Your task to perform on an android device: turn on priority inbox in the gmail app Image 0: 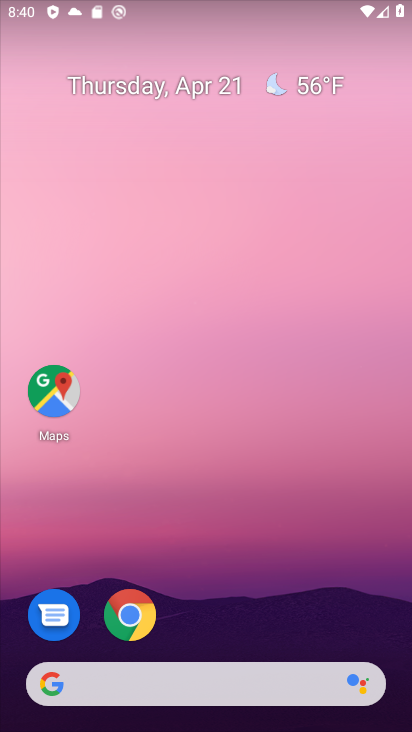
Step 0: drag from (268, 616) to (219, 138)
Your task to perform on an android device: turn on priority inbox in the gmail app Image 1: 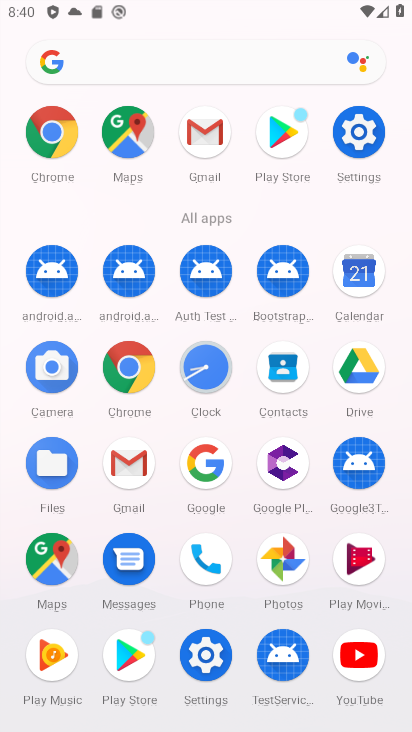
Step 1: click (213, 136)
Your task to perform on an android device: turn on priority inbox in the gmail app Image 2: 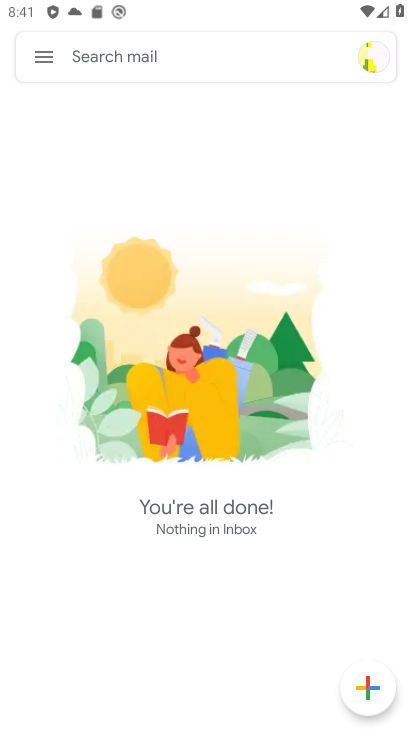
Step 2: click (39, 60)
Your task to perform on an android device: turn on priority inbox in the gmail app Image 3: 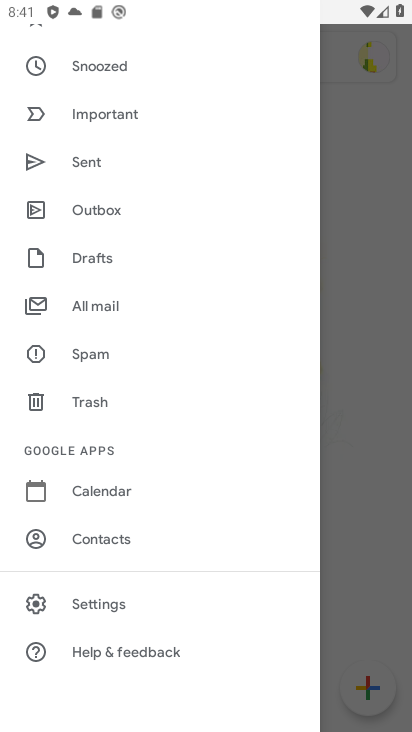
Step 3: click (82, 611)
Your task to perform on an android device: turn on priority inbox in the gmail app Image 4: 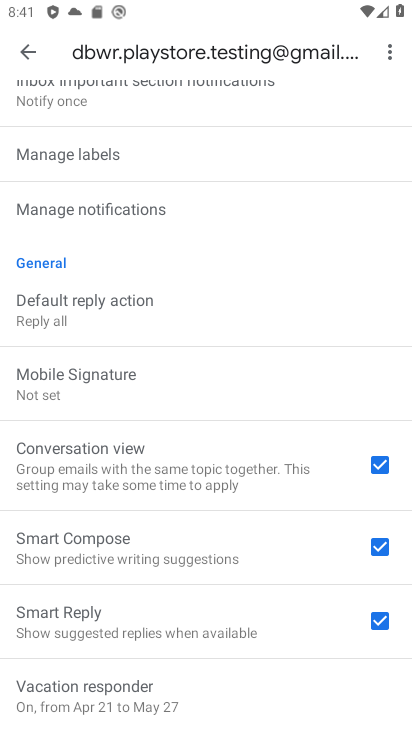
Step 4: drag from (195, 263) to (253, 547)
Your task to perform on an android device: turn on priority inbox in the gmail app Image 5: 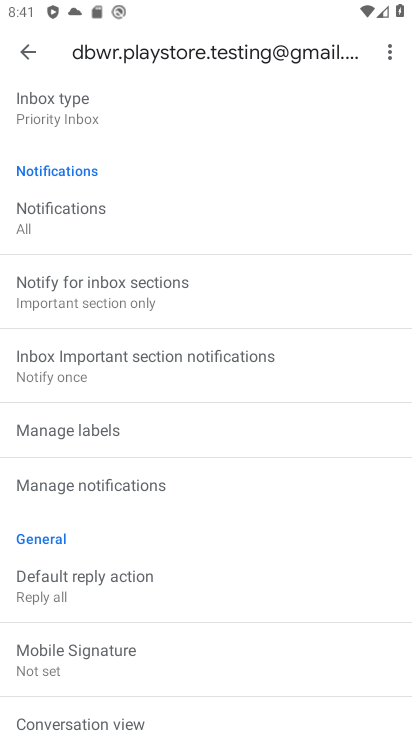
Step 5: drag from (206, 262) to (202, 541)
Your task to perform on an android device: turn on priority inbox in the gmail app Image 6: 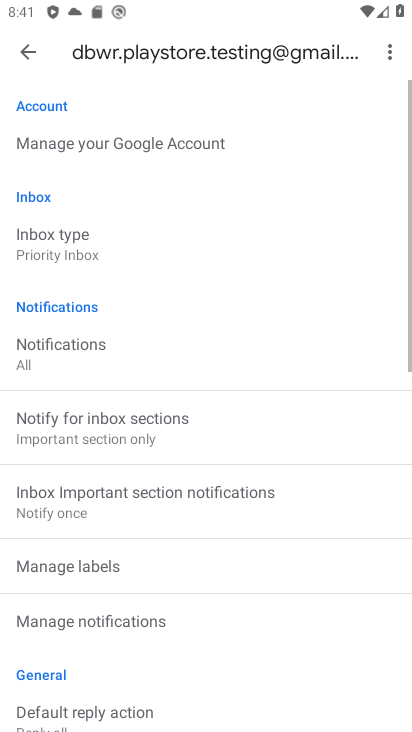
Step 6: click (31, 239)
Your task to perform on an android device: turn on priority inbox in the gmail app Image 7: 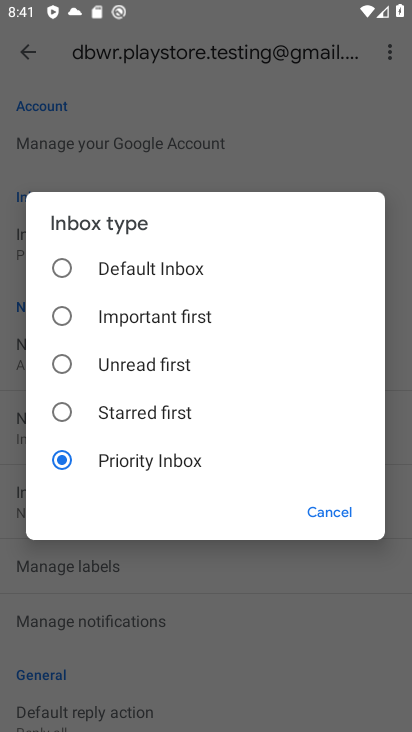
Step 7: task complete